Your task to perform on an android device: Go to network settings Image 0: 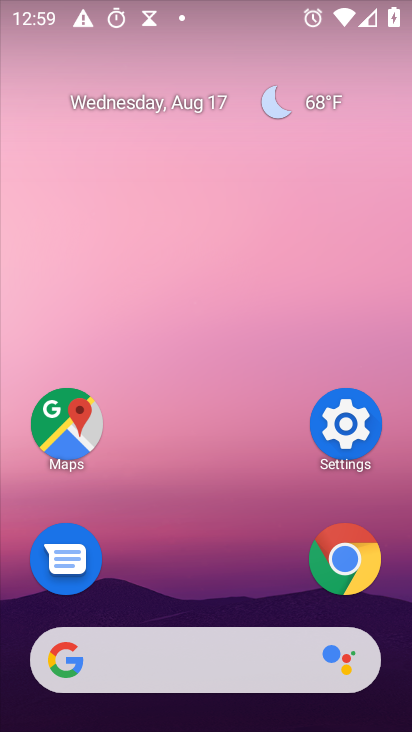
Step 0: click (347, 433)
Your task to perform on an android device: Go to network settings Image 1: 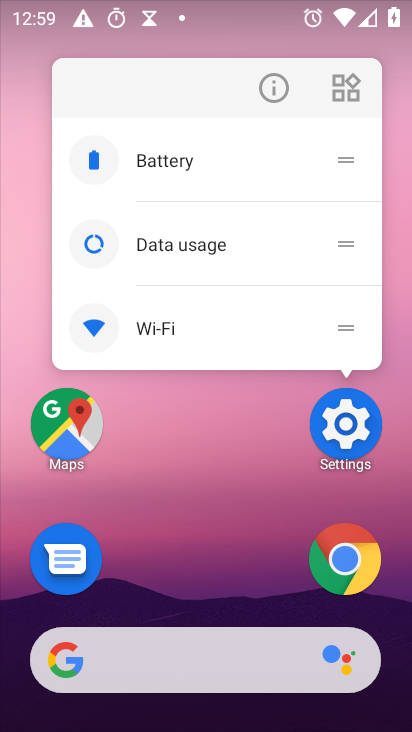
Step 1: click (347, 434)
Your task to perform on an android device: Go to network settings Image 2: 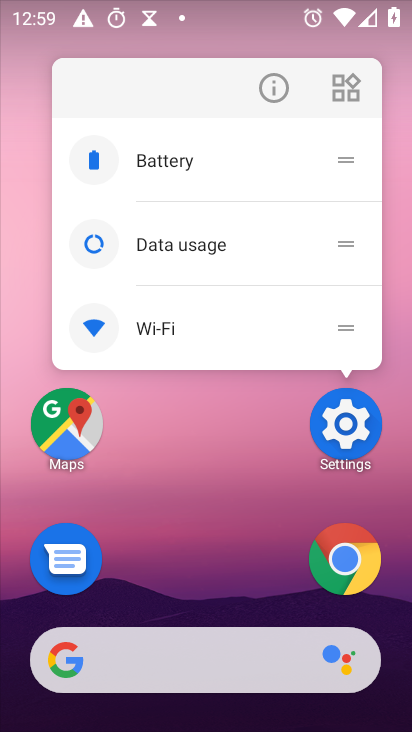
Step 2: click (347, 434)
Your task to perform on an android device: Go to network settings Image 3: 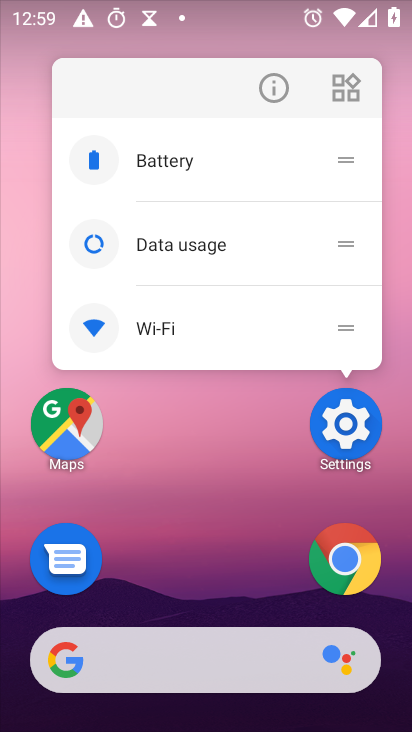
Step 3: click (347, 433)
Your task to perform on an android device: Go to network settings Image 4: 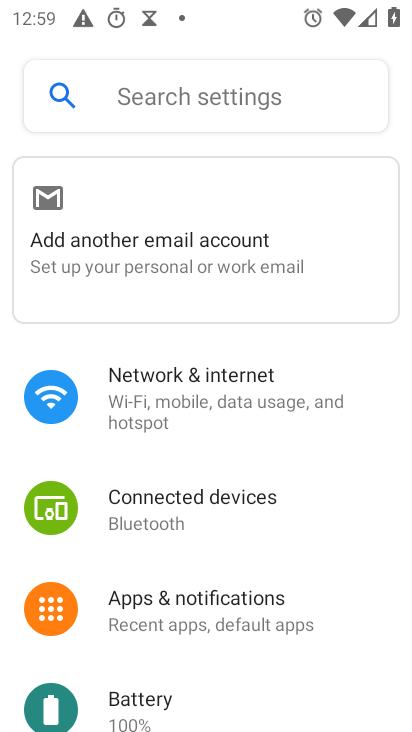
Step 4: click (171, 378)
Your task to perform on an android device: Go to network settings Image 5: 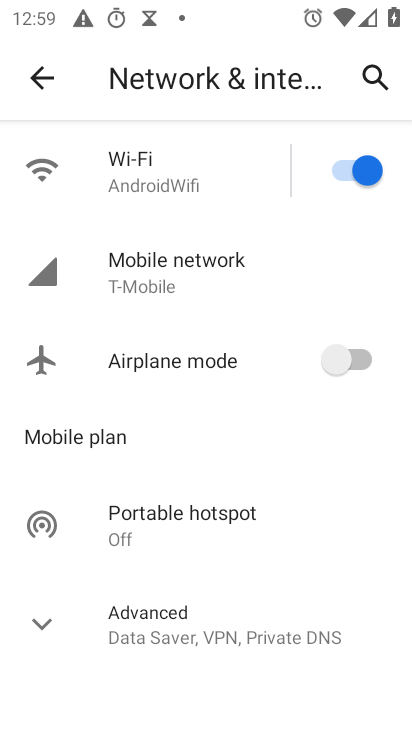
Step 5: task complete